Your task to perform on an android device: Go to ESPN.com Image 0: 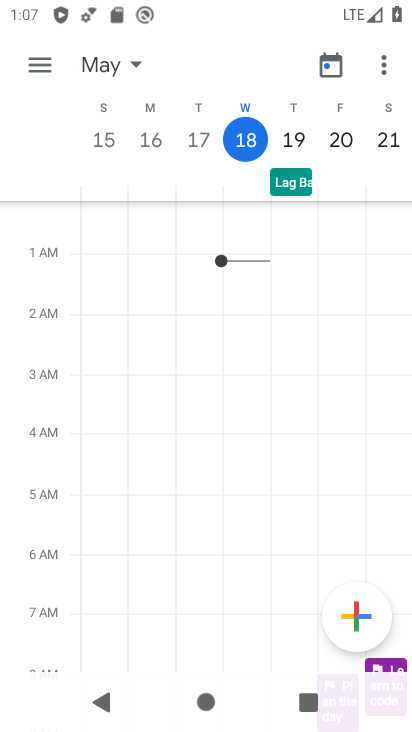
Step 0: press home button
Your task to perform on an android device: Go to ESPN.com Image 1: 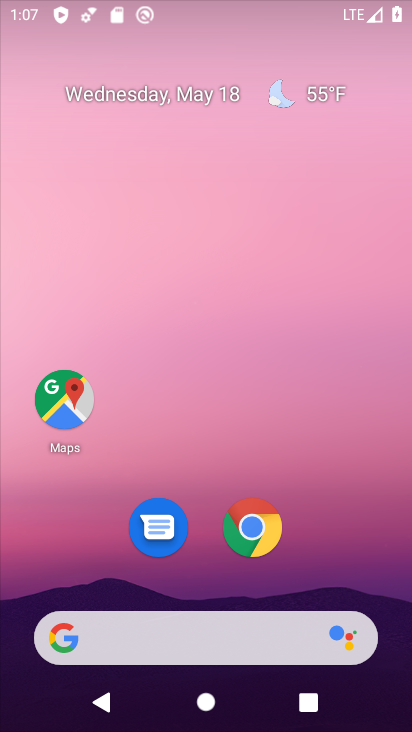
Step 1: click (248, 518)
Your task to perform on an android device: Go to ESPN.com Image 2: 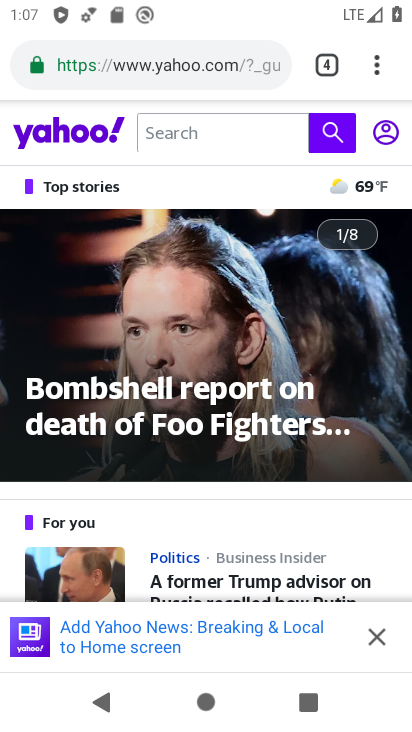
Step 2: click (339, 70)
Your task to perform on an android device: Go to ESPN.com Image 3: 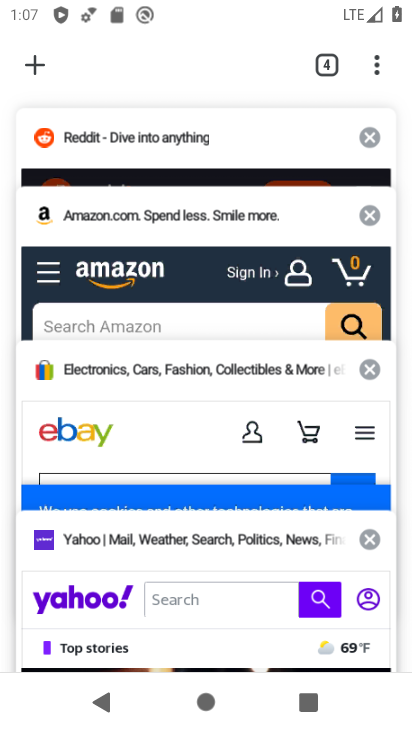
Step 3: click (30, 63)
Your task to perform on an android device: Go to ESPN.com Image 4: 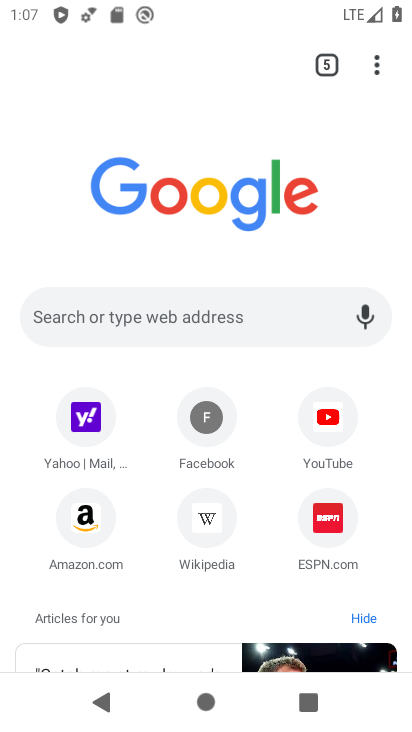
Step 4: click (337, 529)
Your task to perform on an android device: Go to ESPN.com Image 5: 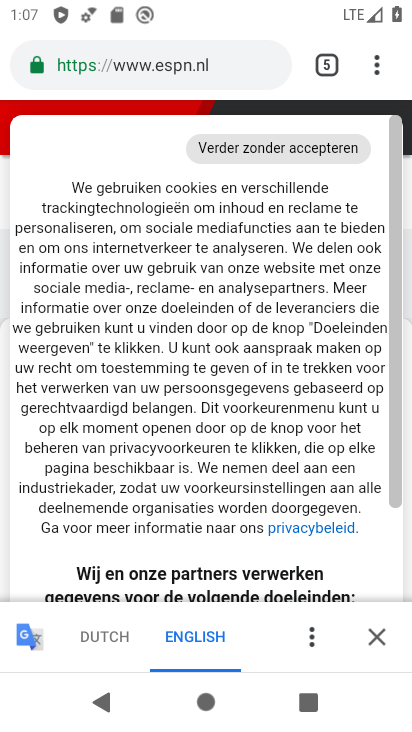
Step 5: task complete